Your task to perform on an android device: change the clock display to analog Image 0: 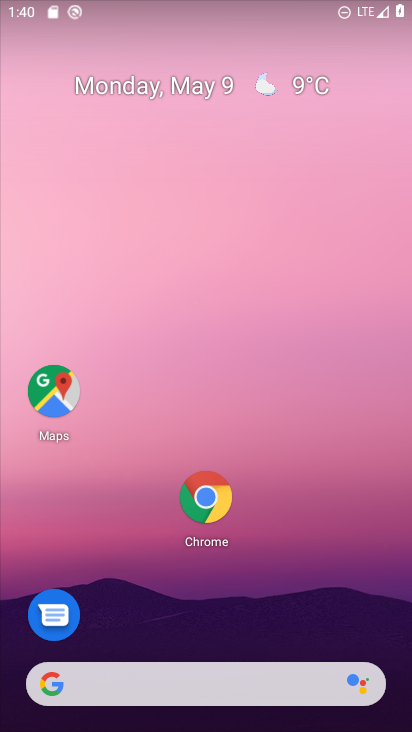
Step 0: drag from (382, 599) to (266, 60)
Your task to perform on an android device: change the clock display to analog Image 1: 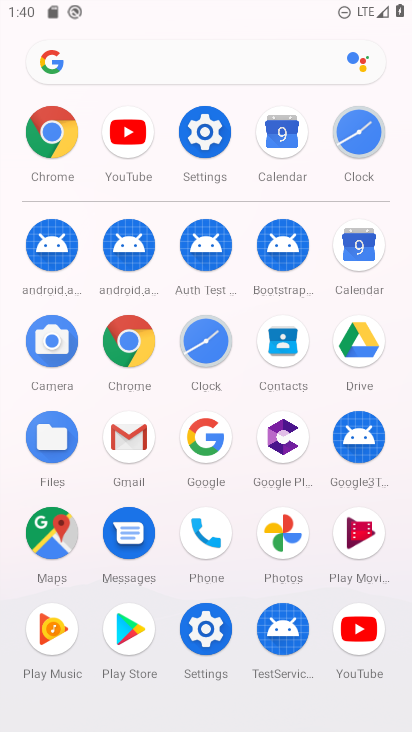
Step 1: click (353, 148)
Your task to perform on an android device: change the clock display to analog Image 2: 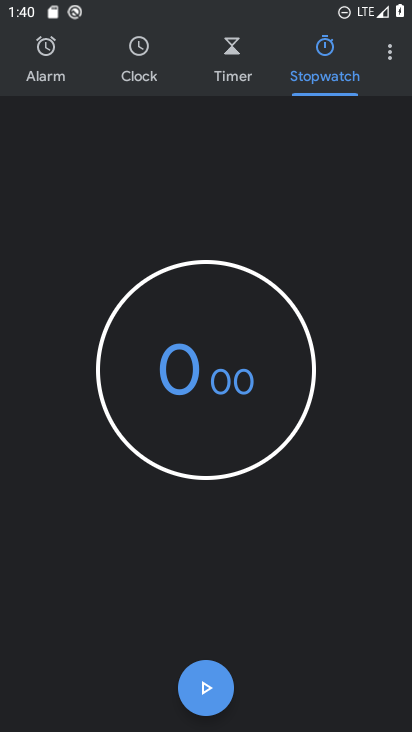
Step 2: click (385, 54)
Your task to perform on an android device: change the clock display to analog Image 3: 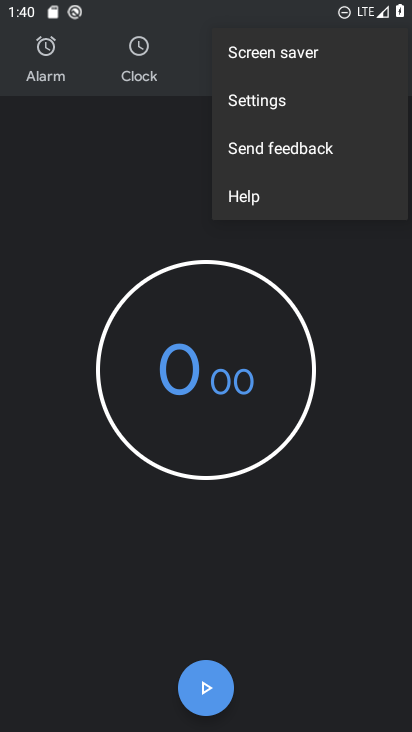
Step 3: click (262, 104)
Your task to perform on an android device: change the clock display to analog Image 4: 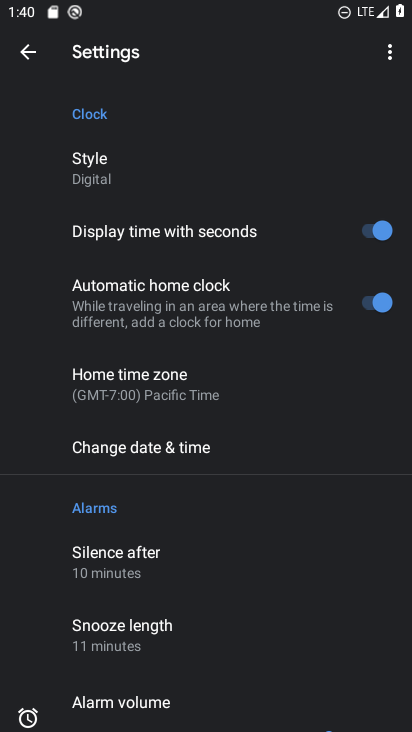
Step 4: click (86, 175)
Your task to perform on an android device: change the clock display to analog Image 5: 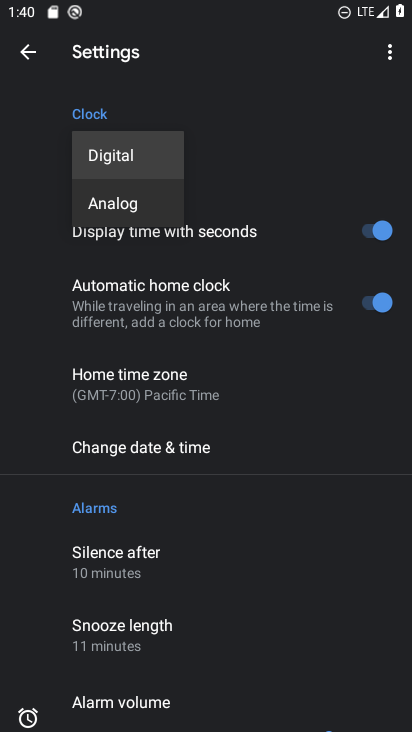
Step 5: click (133, 214)
Your task to perform on an android device: change the clock display to analog Image 6: 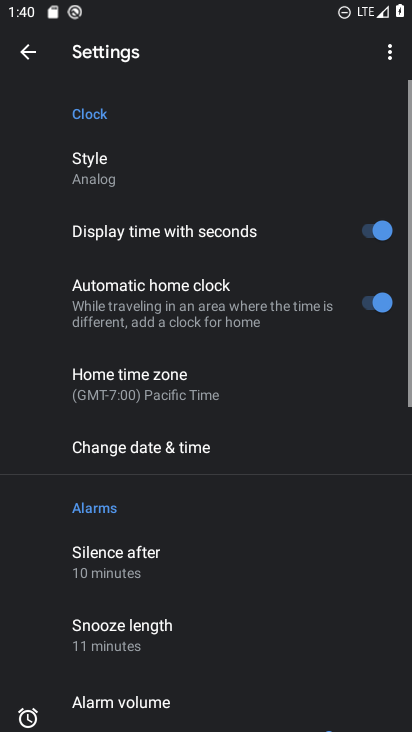
Step 6: task complete